Your task to perform on an android device: Open my contact list Image 0: 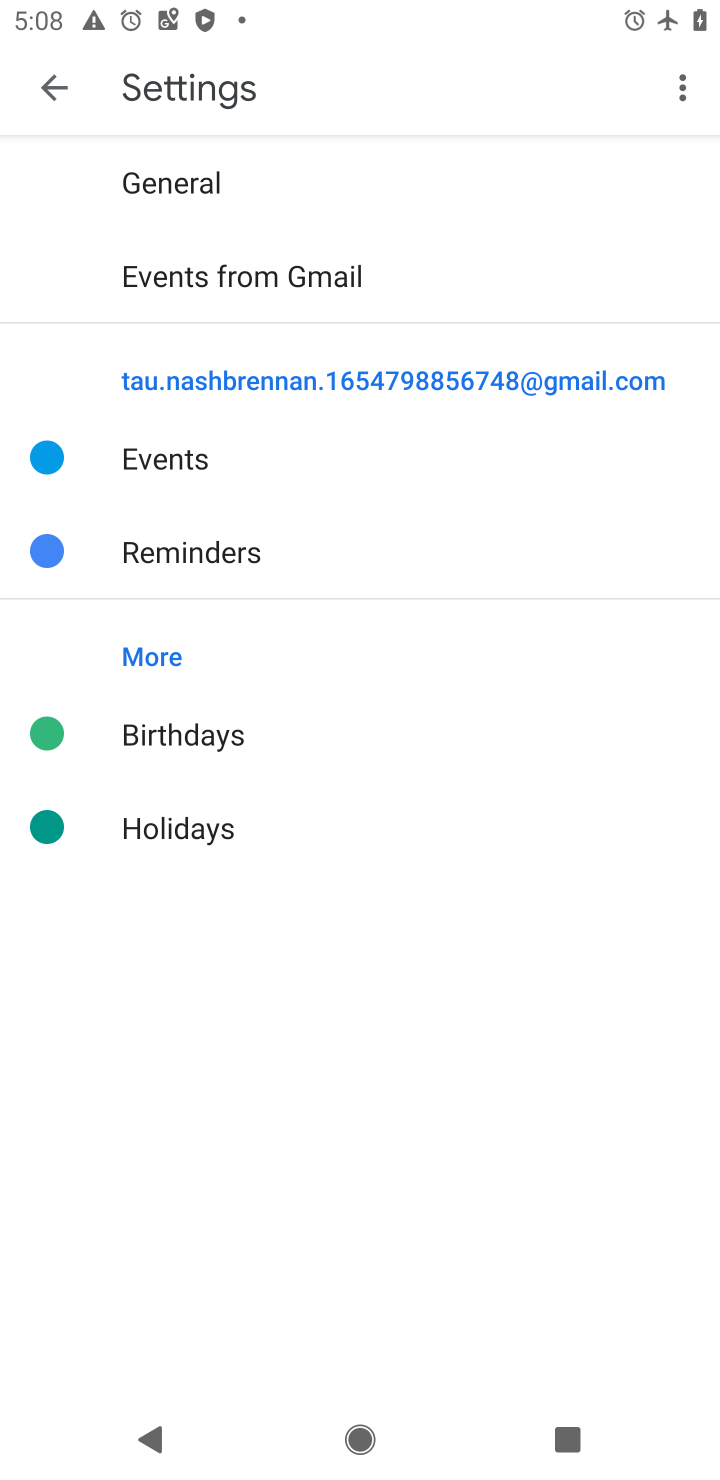
Step 0: press home button
Your task to perform on an android device: Open my contact list Image 1: 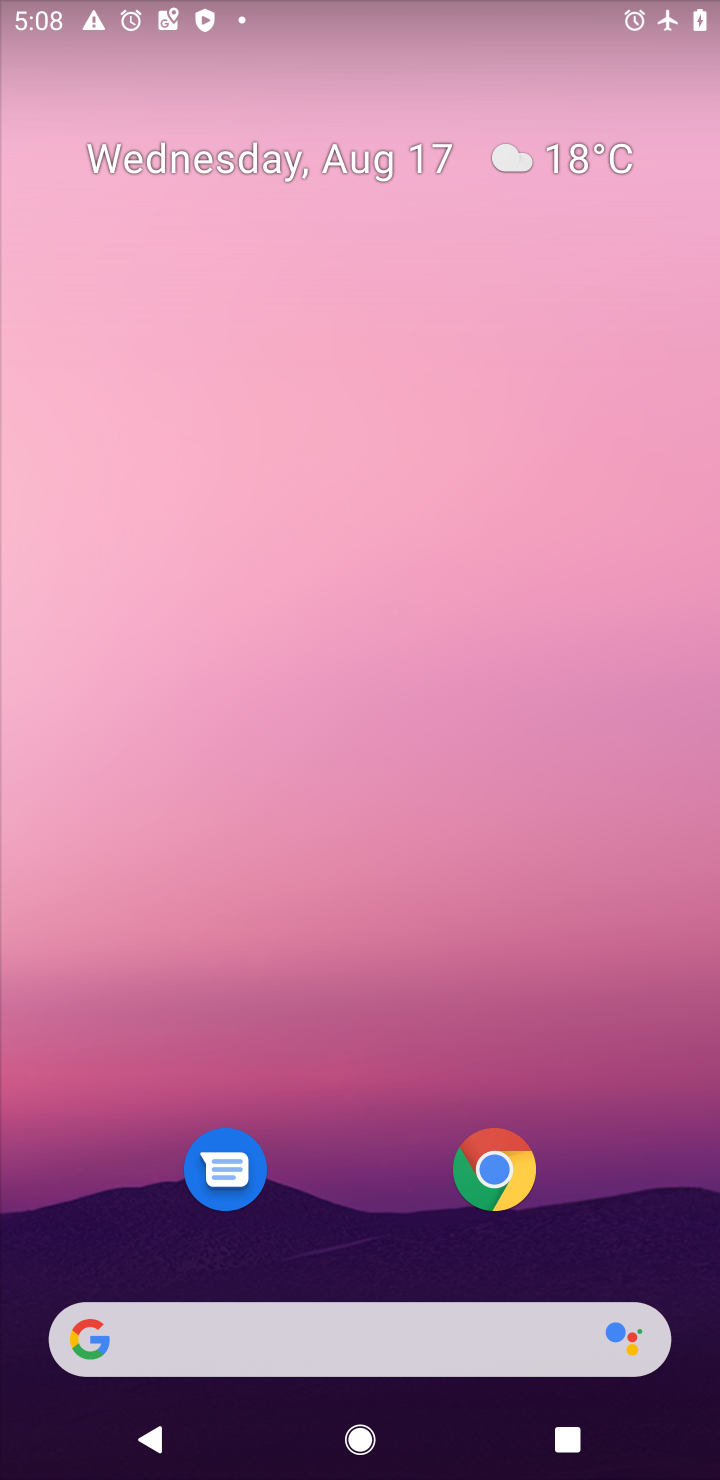
Step 1: drag from (309, 1197) to (333, 15)
Your task to perform on an android device: Open my contact list Image 2: 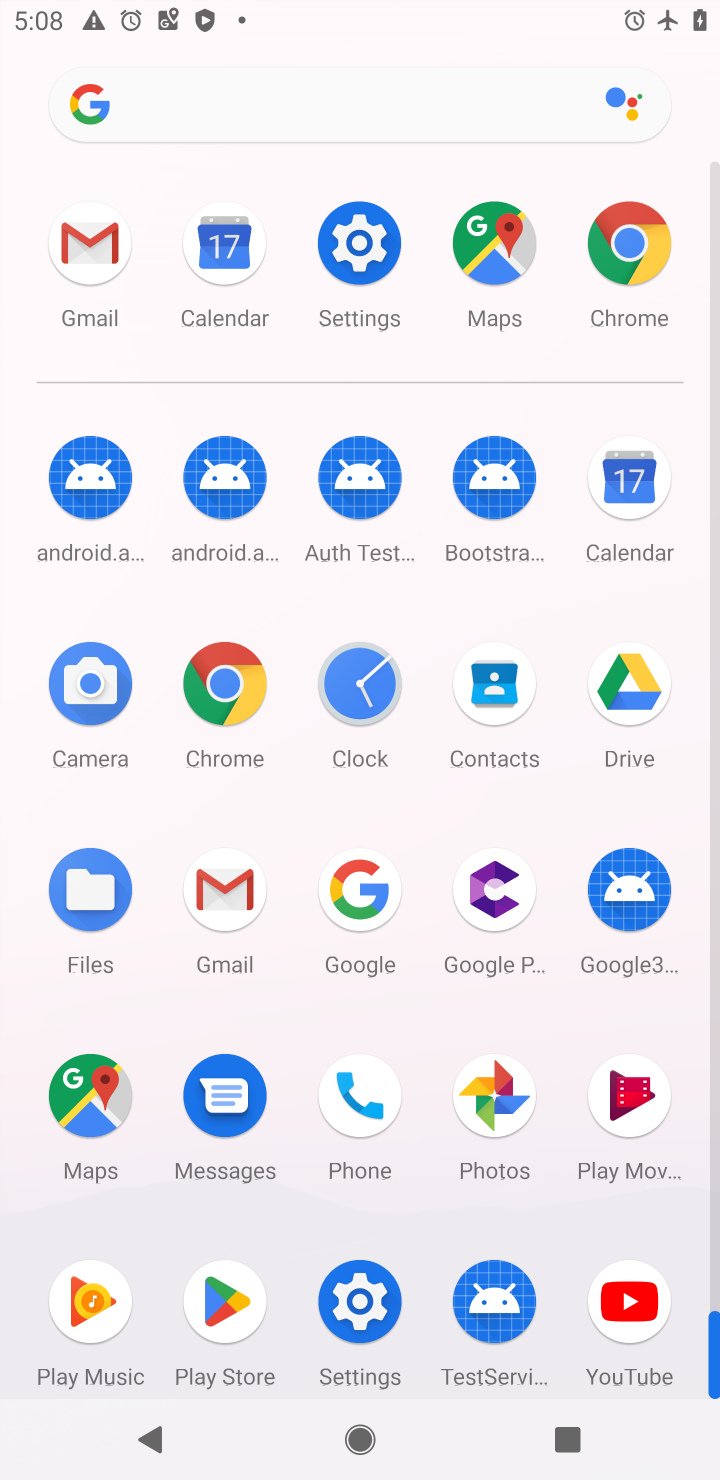
Step 2: click (490, 693)
Your task to perform on an android device: Open my contact list Image 3: 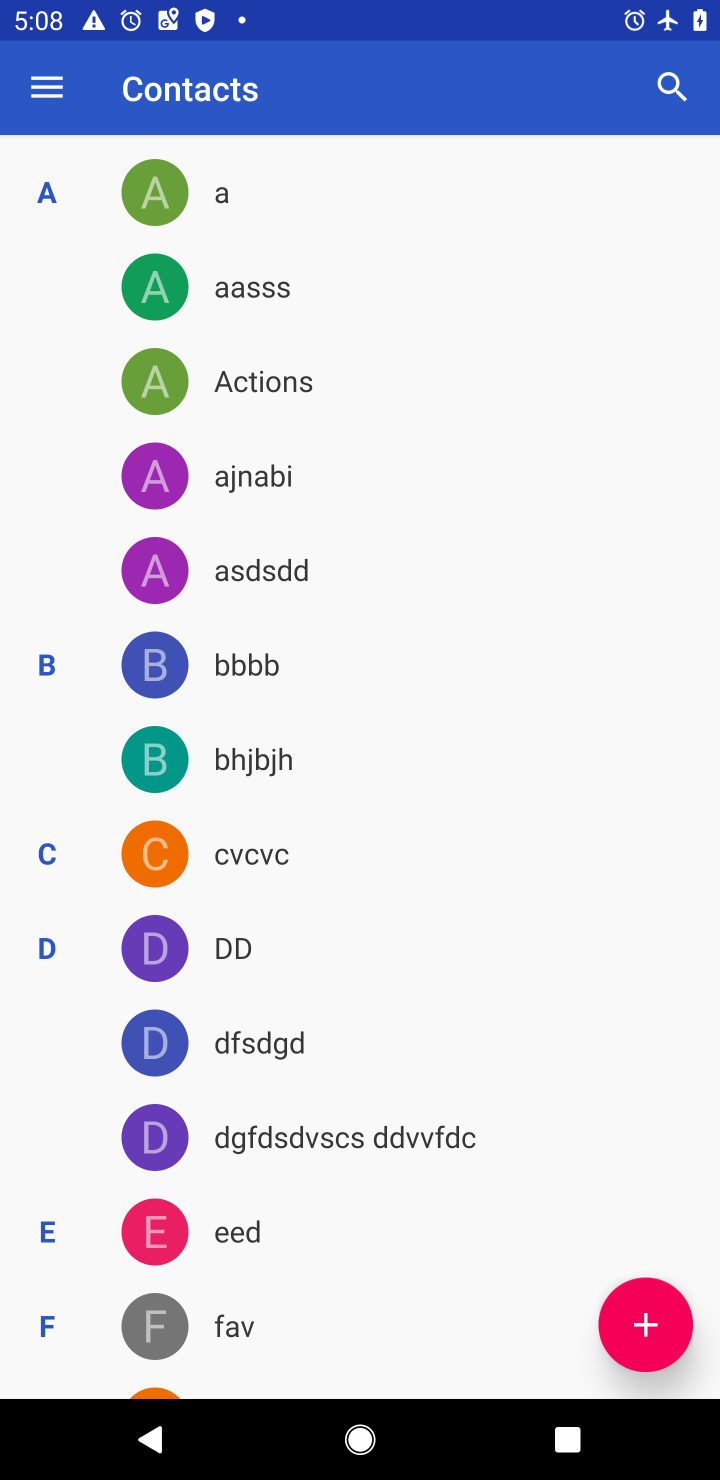
Step 3: task complete